Your task to perform on an android device: turn on the 24-hour format for clock Image 0: 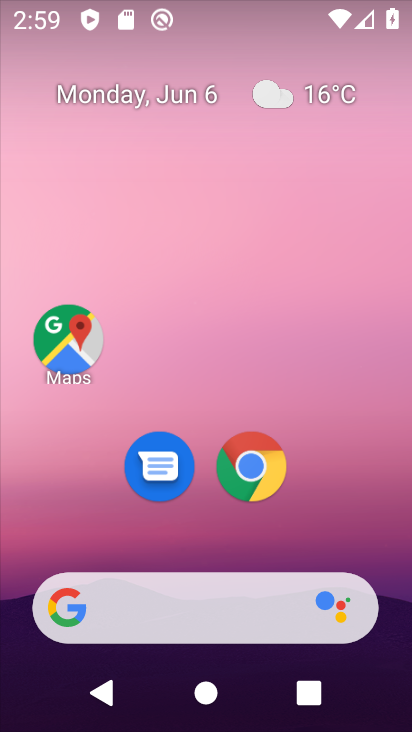
Step 0: drag from (342, 430) to (356, 122)
Your task to perform on an android device: turn on the 24-hour format for clock Image 1: 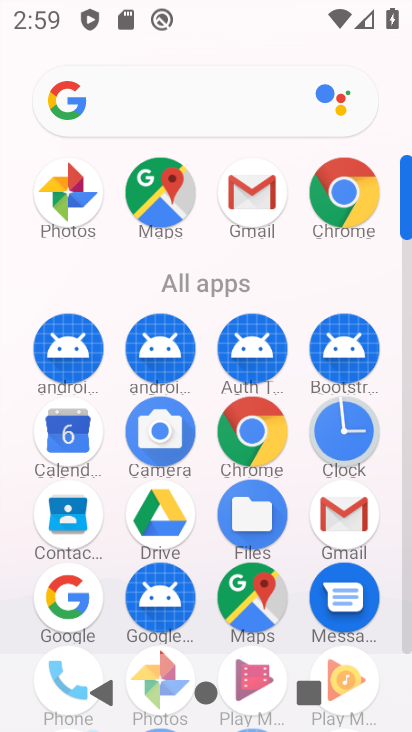
Step 1: click (335, 431)
Your task to perform on an android device: turn on the 24-hour format for clock Image 2: 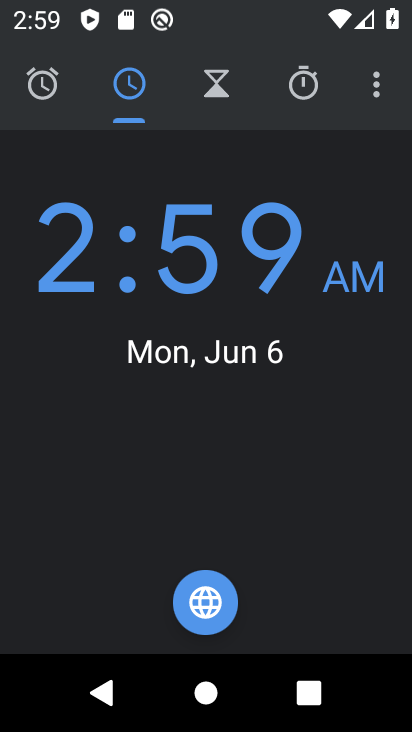
Step 2: drag from (380, 84) to (270, 160)
Your task to perform on an android device: turn on the 24-hour format for clock Image 3: 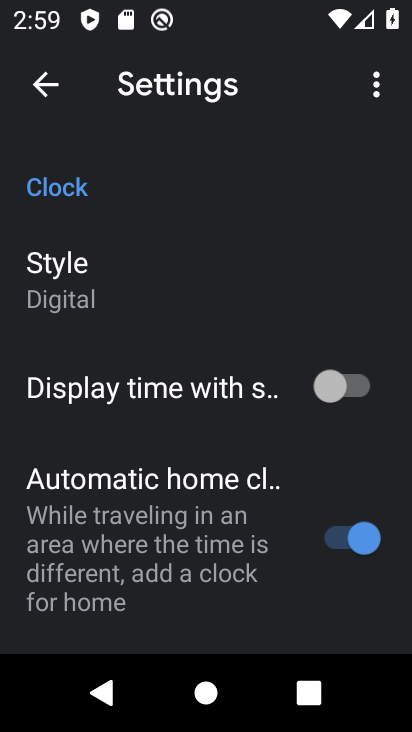
Step 3: drag from (218, 538) to (269, 86)
Your task to perform on an android device: turn on the 24-hour format for clock Image 4: 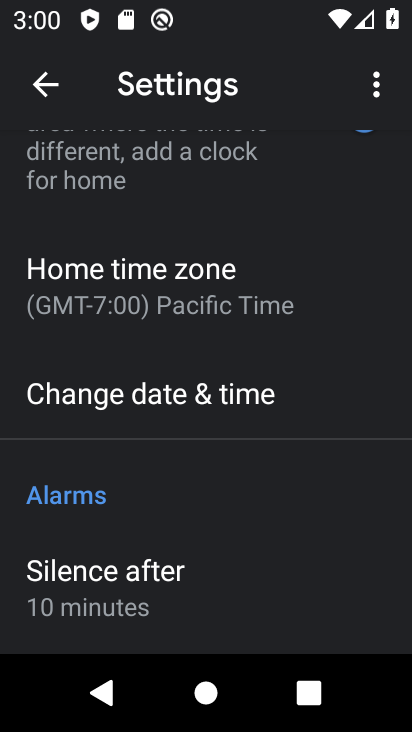
Step 4: drag from (219, 489) to (286, 146)
Your task to perform on an android device: turn on the 24-hour format for clock Image 5: 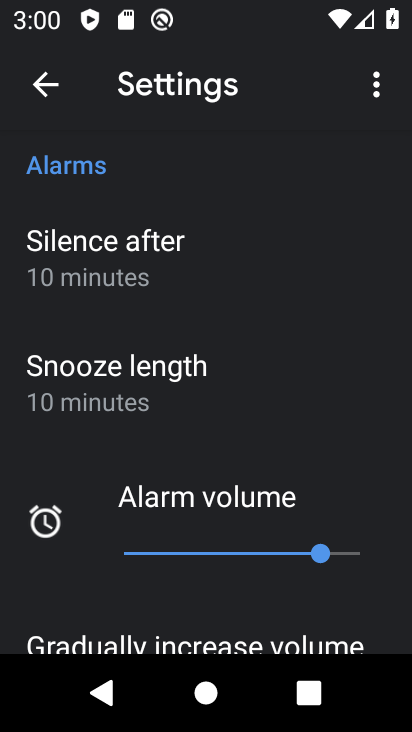
Step 5: drag from (225, 207) to (219, 459)
Your task to perform on an android device: turn on the 24-hour format for clock Image 6: 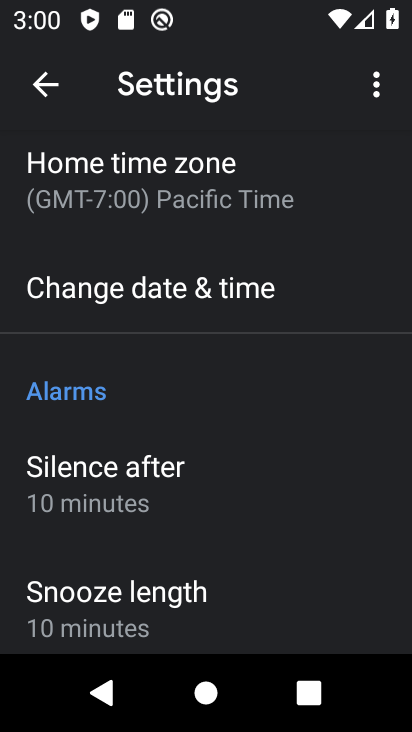
Step 6: click (231, 311)
Your task to perform on an android device: turn on the 24-hour format for clock Image 7: 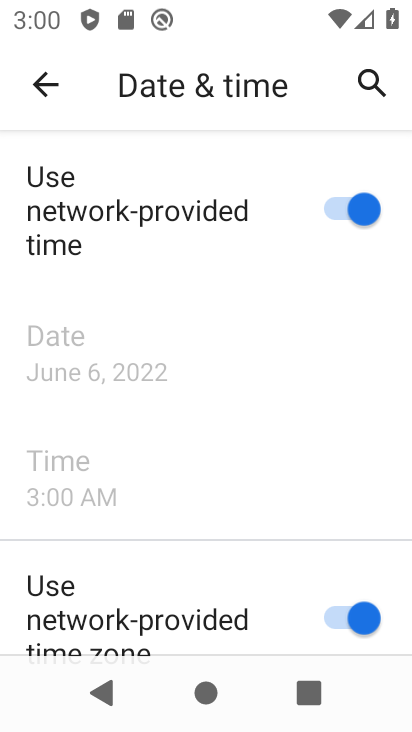
Step 7: drag from (256, 518) to (306, 140)
Your task to perform on an android device: turn on the 24-hour format for clock Image 8: 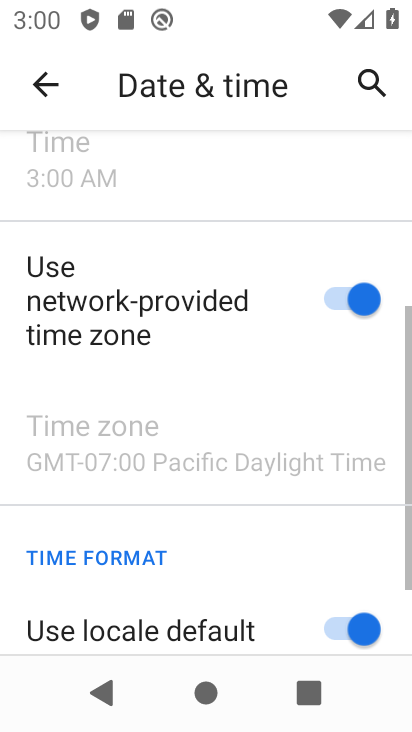
Step 8: click (308, 134)
Your task to perform on an android device: turn on the 24-hour format for clock Image 9: 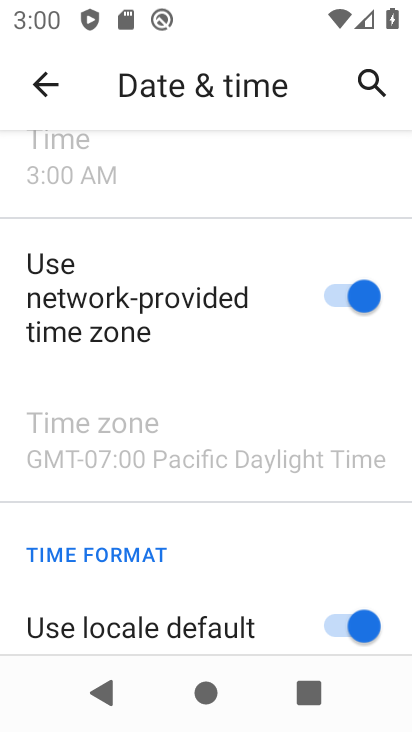
Step 9: drag from (265, 468) to (310, 146)
Your task to perform on an android device: turn on the 24-hour format for clock Image 10: 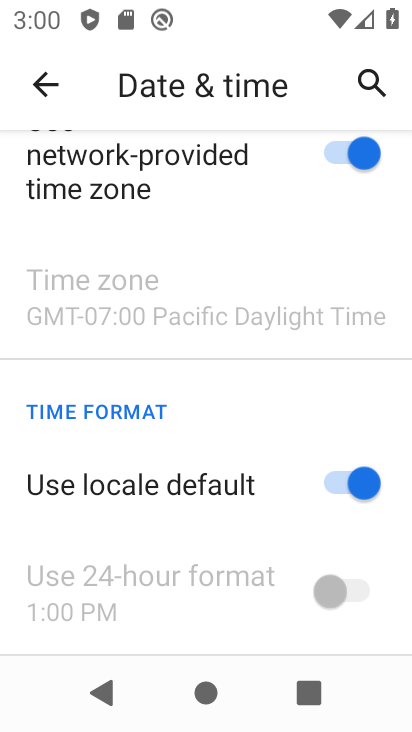
Step 10: click (361, 483)
Your task to perform on an android device: turn on the 24-hour format for clock Image 11: 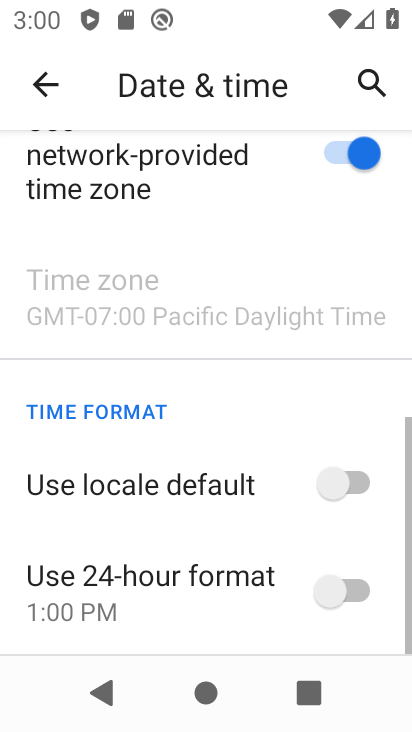
Step 11: click (350, 603)
Your task to perform on an android device: turn on the 24-hour format for clock Image 12: 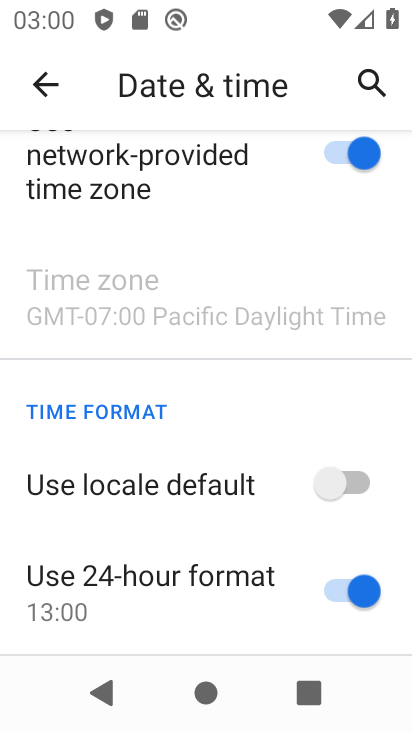
Step 12: task complete